Your task to perform on an android device: Open the calendar and show me this week's events? Image 0: 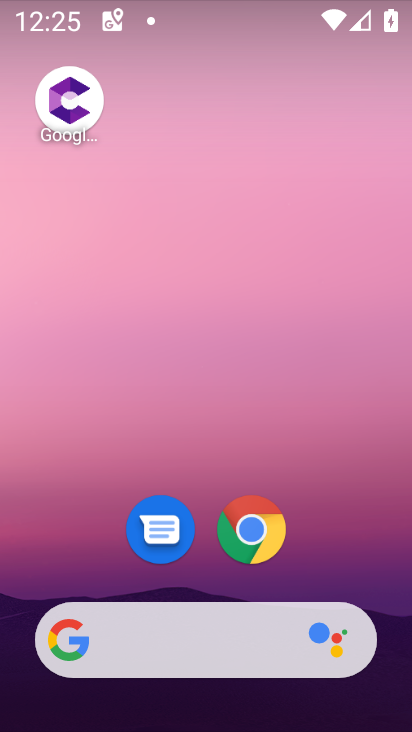
Step 0: drag from (388, 625) to (345, 183)
Your task to perform on an android device: Open the calendar and show me this week's events? Image 1: 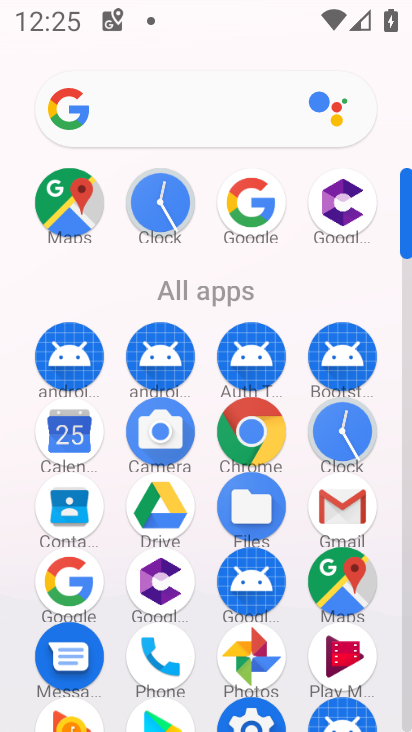
Step 1: click (56, 435)
Your task to perform on an android device: Open the calendar and show me this week's events? Image 2: 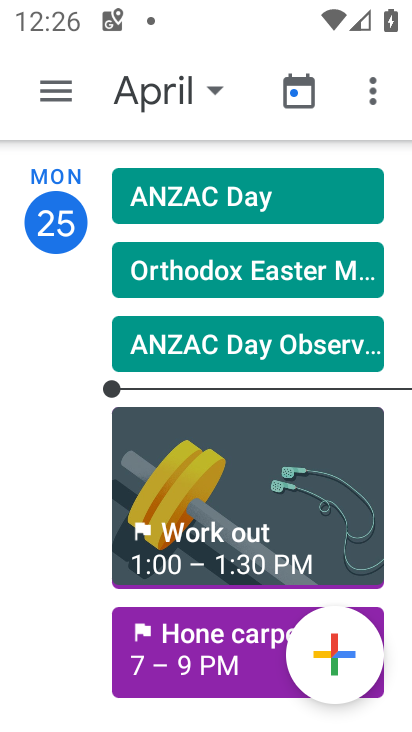
Step 2: click (62, 91)
Your task to perform on an android device: Open the calendar and show me this week's events? Image 3: 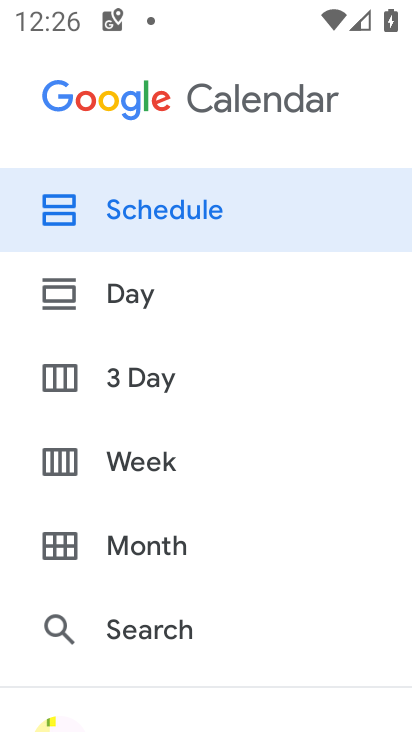
Step 3: click (130, 459)
Your task to perform on an android device: Open the calendar and show me this week's events? Image 4: 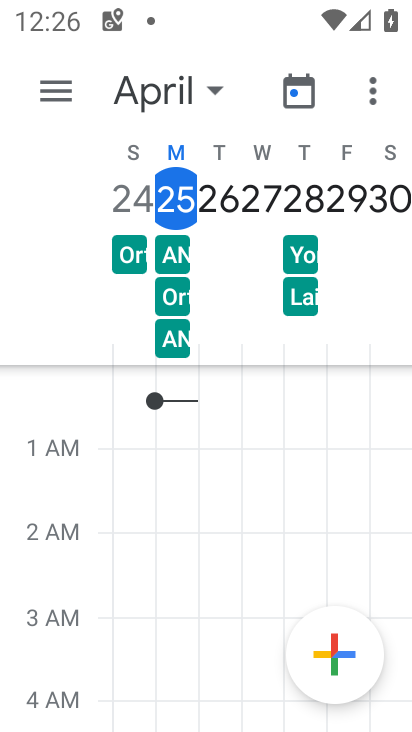
Step 4: task complete